Your task to perform on an android device: find photos in the google photos app Image 0: 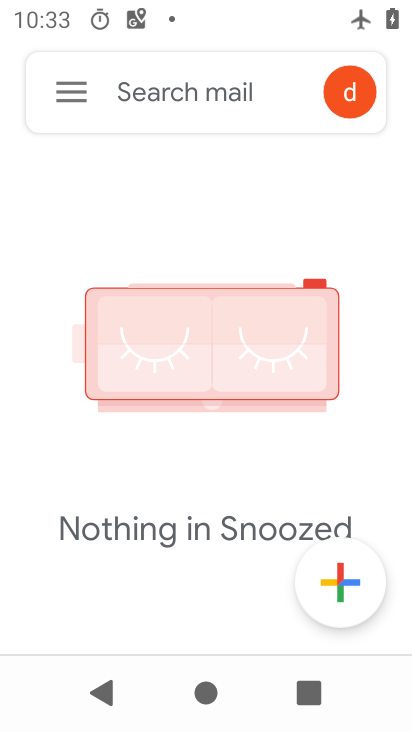
Step 0: press home button
Your task to perform on an android device: find photos in the google photos app Image 1: 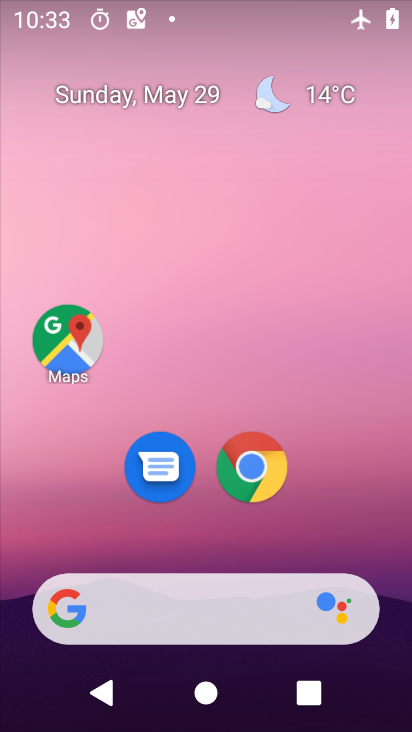
Step 1: drag from (215, 539) to (202, 148)
Your task to perform on an android device: find photos in the google photos app Image 2: 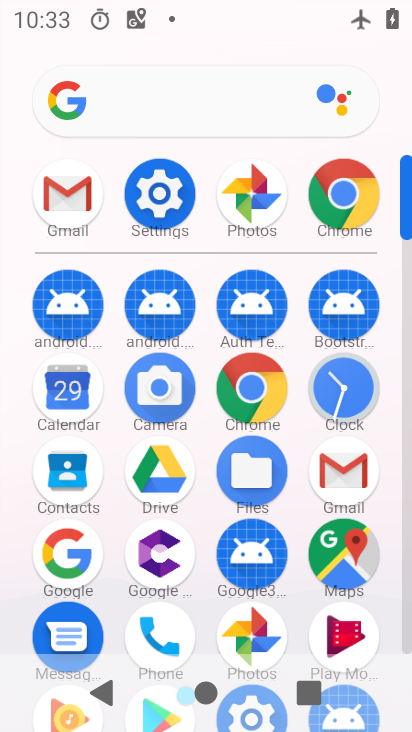
Step 2: click (247, 190)
Your task to perform on an android device: find photos in the google photos app Image 3: 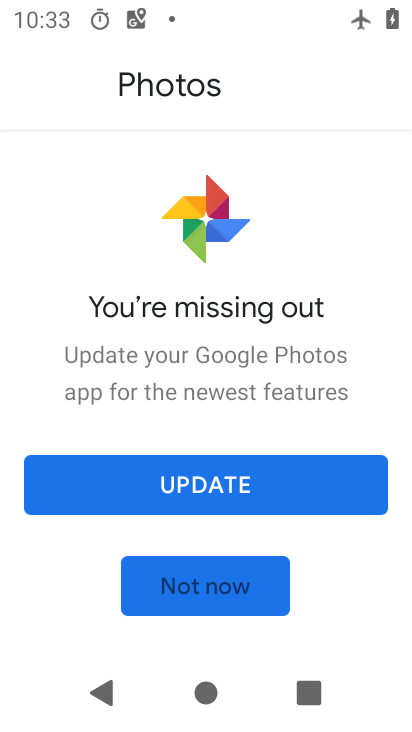
Step 3: click (258, 589)
Your task to perform on an android device: find photos in the google photos app Image 4: 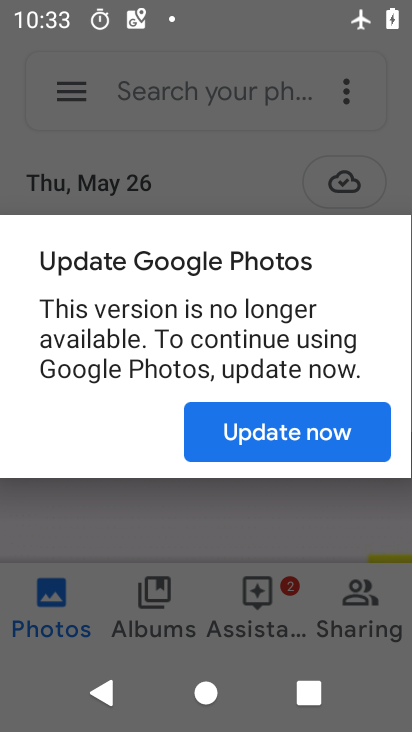
Step 4: click (231, 415)
Your task to perform on an android device: find photos in the google photos app Image 5: 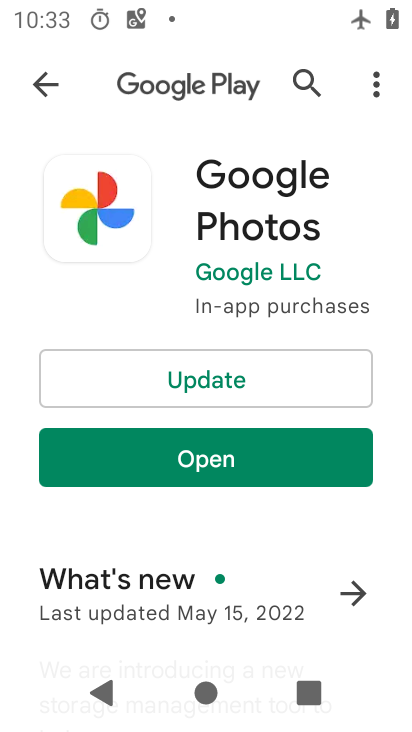
Step 5: click (234, 443)
Your task to perform on an android device: find photos in the google photos app Image 6: 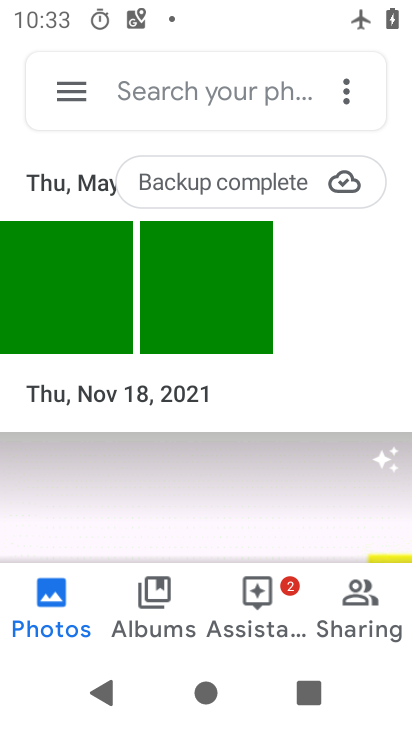
Step 6: click (299, 87)
Your task to perform on an android device: find photos in the google photos app Image 7: 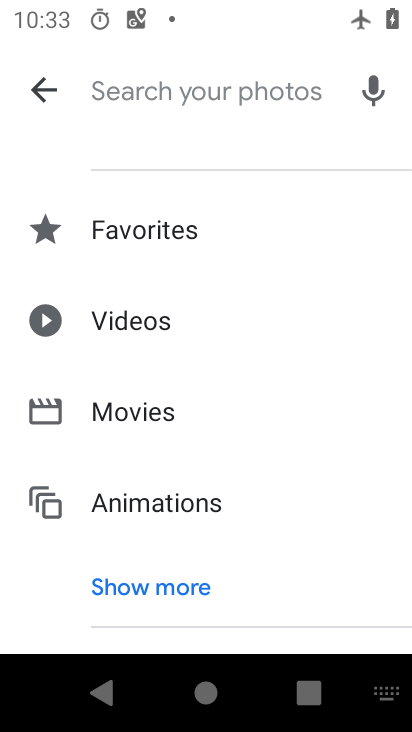
Step 7: type "aa"
Your task to perform on an android device: find photos in the google photos app Image 8: 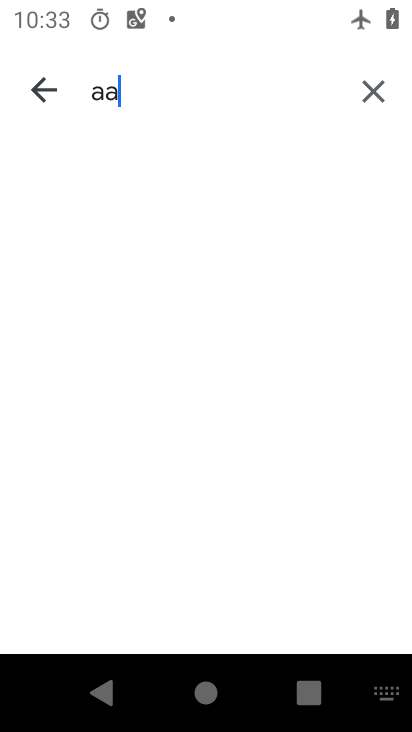
Step 8: click (370, 92)
Your task to perform on an android device: find photos in the google photos app Image 9: 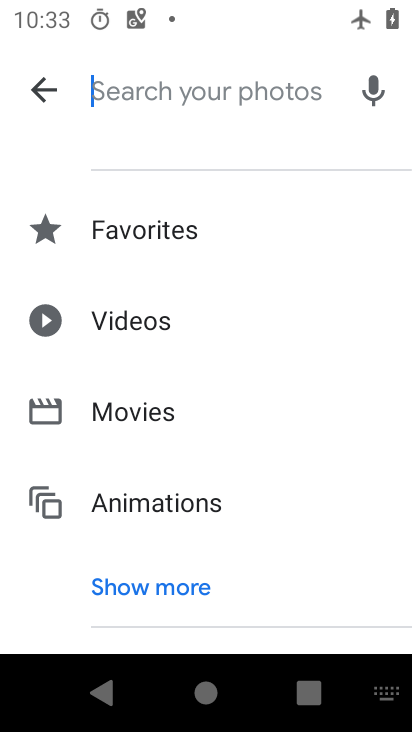
Step 9: click (155, 100)
Your task to perform on an android device: find photos in the google photos app Image 10: 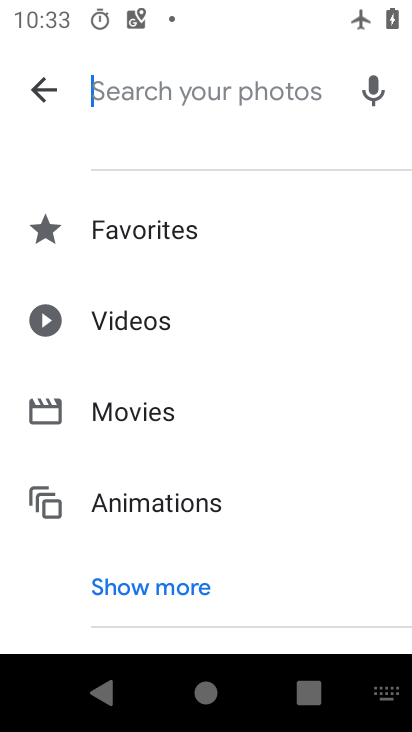
Step 10: type "aa"
Your task to perform on an android device: find photos in the google photos app Image 11: 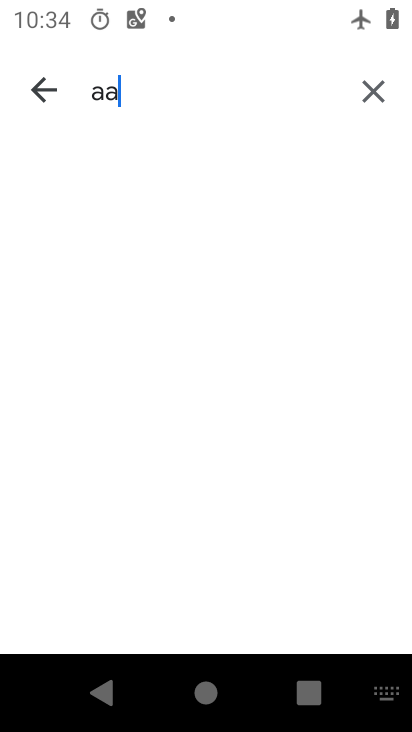
Step 11: task complete